Your task to perform on an android device: change the clock style Image 0: 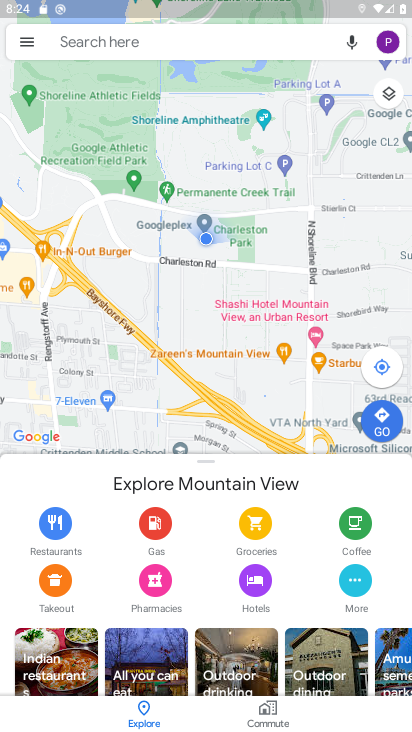
Step 0: press home button
Your task to perform on an android device: change the clock style Image 1: 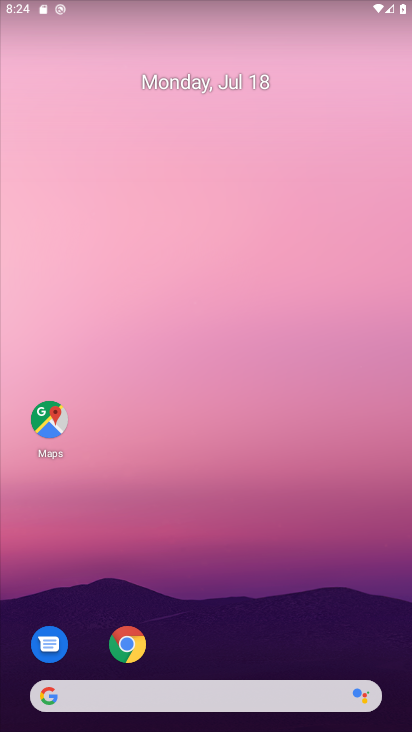
Step 1: drag from (226, 638) to (254, 328)
Your task to perform on an android device: change the clock style Image 2: 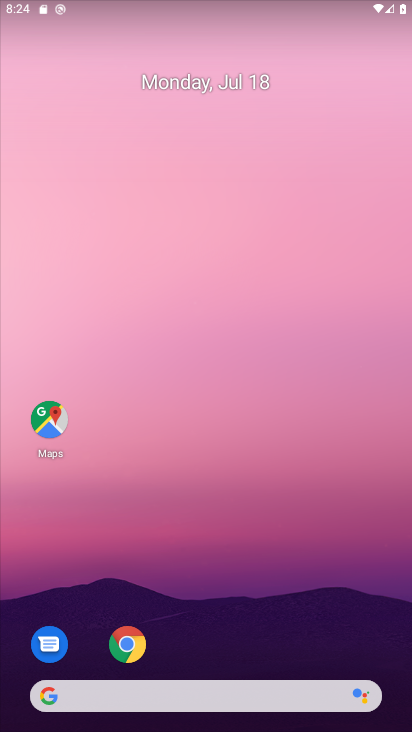
Step 2: drag from (224, 649) to (195, 87)
Your task to perform on an android device: change the clock style Image 3: 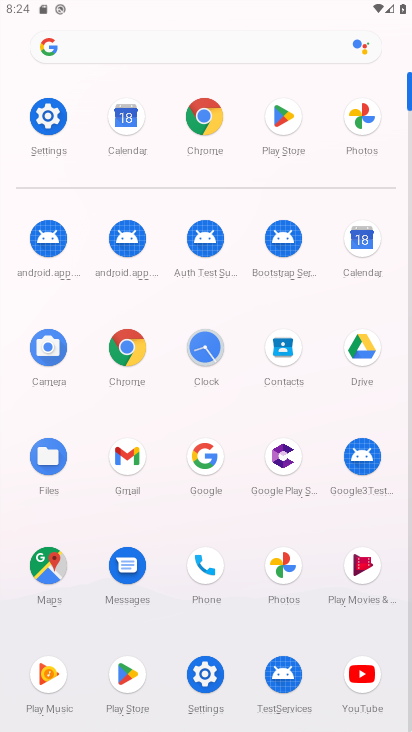
Step 3: click (201, 353)
Your task to perform on an android device: change the clock style Image 4: 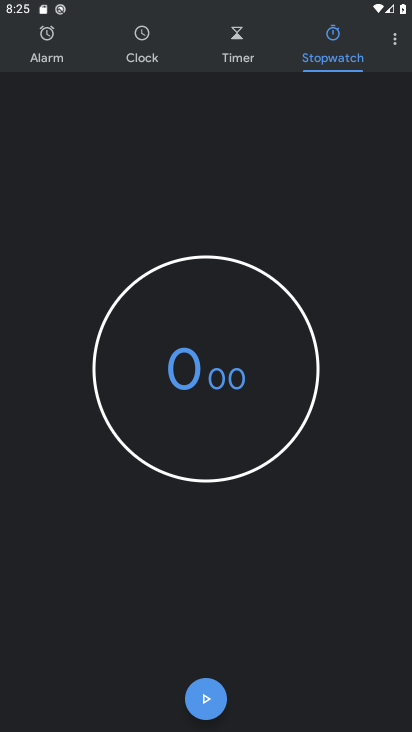
Step 4: click (386, 38)
Your task to perform on an android device: change the clock style Image 5: 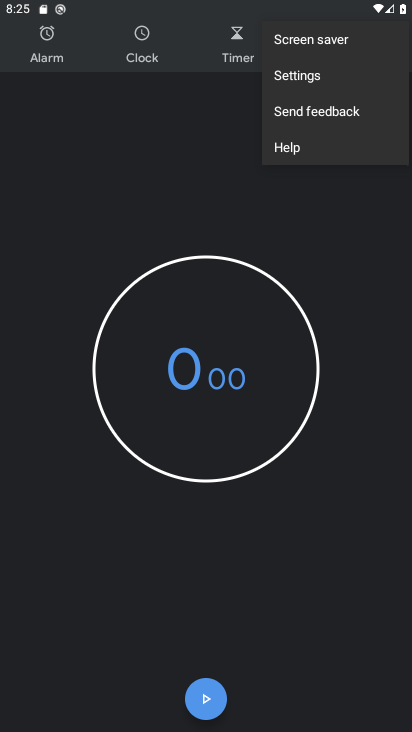
Step 5: click (294, 82)
Your task to perform on an android device: change the clock style Image 6: 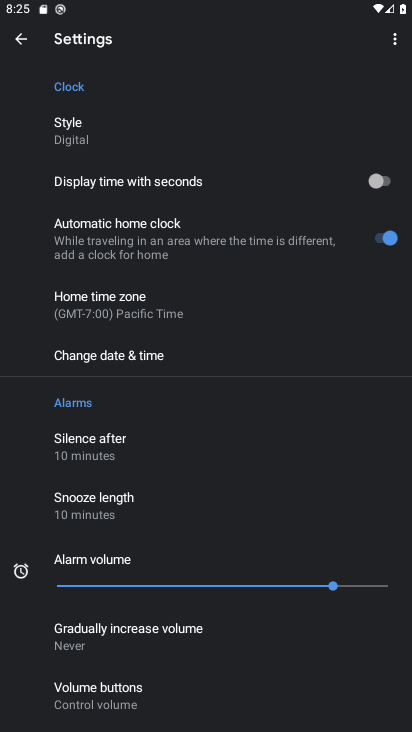
Step 6: click (187, 124)
Your task to perform on an android device: change the clock style Image 7: 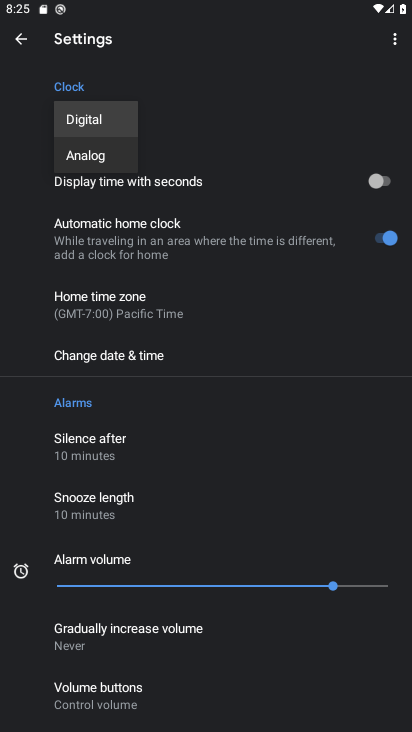
Step 7: click (73, 158)
Your task to perform on an android device: change the clock style Image 8: 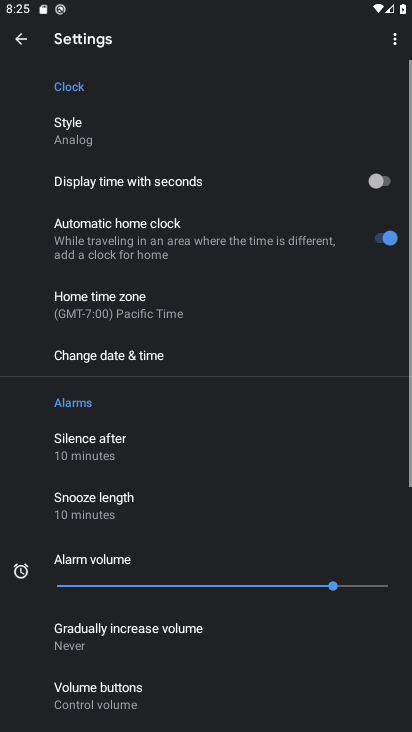
Step 8: task complete